Your task to perform on an android device: Open settings on Google Maps Image 0: 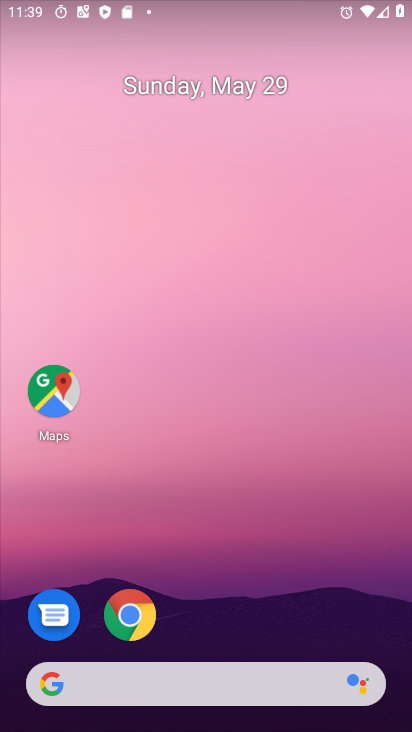
Step 0: drag from (230, 619) to (218, 95)
Your task to perform on an android device: Open settings on Google Maps Image 1: 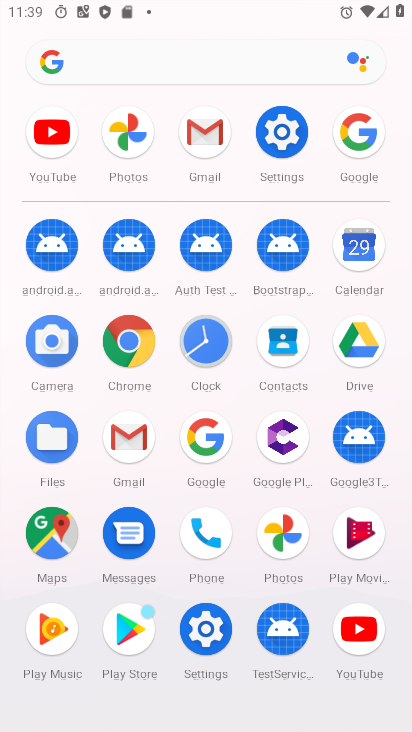
Step 1: click (50, 540)
Your task to perform on an android device: Open settings on Google Maps Image 2: 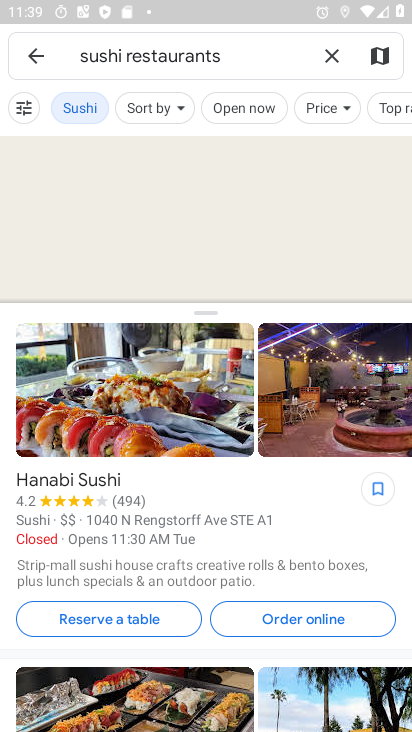
Step 2: click (335, 58)
Your task to perform on an android device: Open settings on Google Maps Image 3: 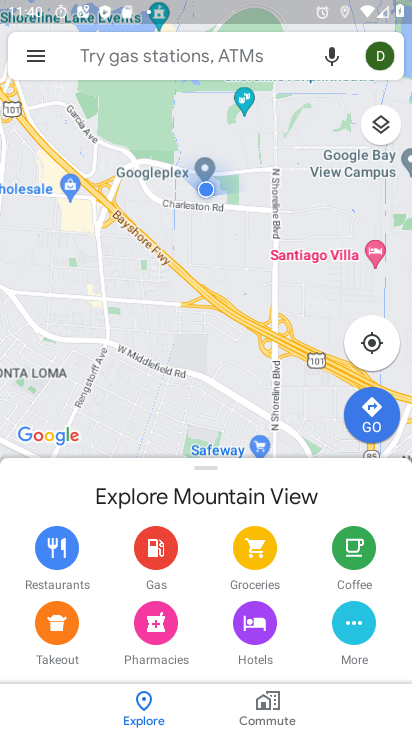
Step 3: click (36, 57)
Your task to perform on an android device: Open settings on Google Maps Image 4: 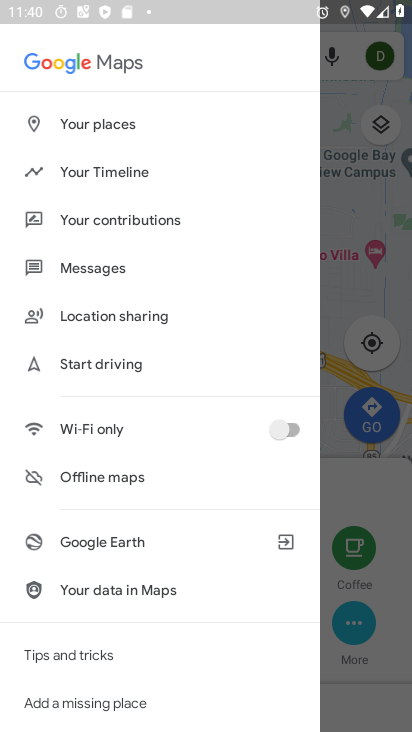
Step 4: drag from (173, 655) to (201, 78)
Your task to perform on an android device: Open settings on Google Maps Image 5: 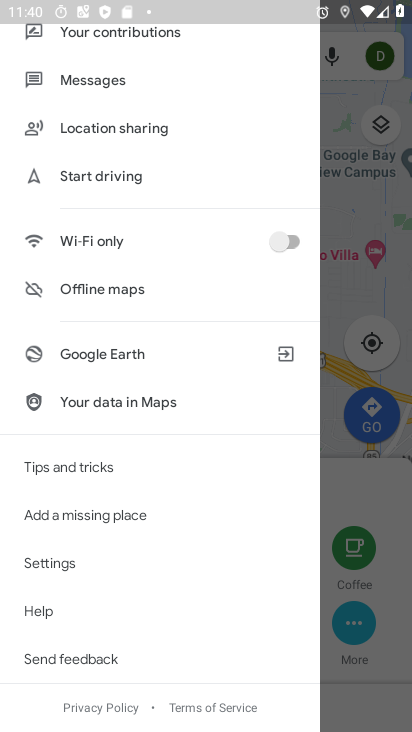
Step 5: click (53, 561)
Your task to perform on an android device: Open settings on Google Maps Image 6: 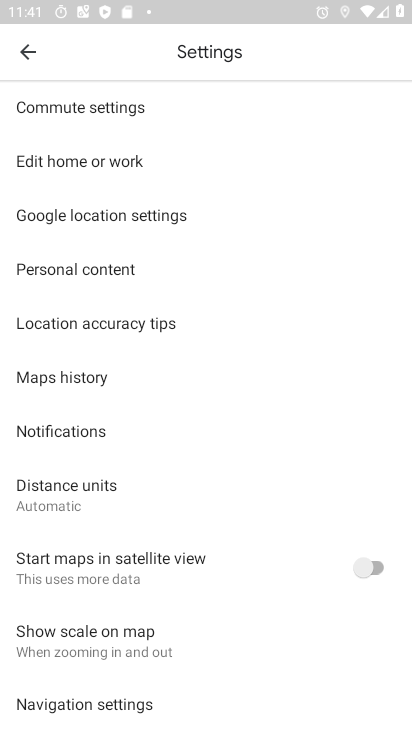
Step 6: task complete